Your task to perform on an android device: open app "Microsoft Excel" (install if not already installed) Image 0: 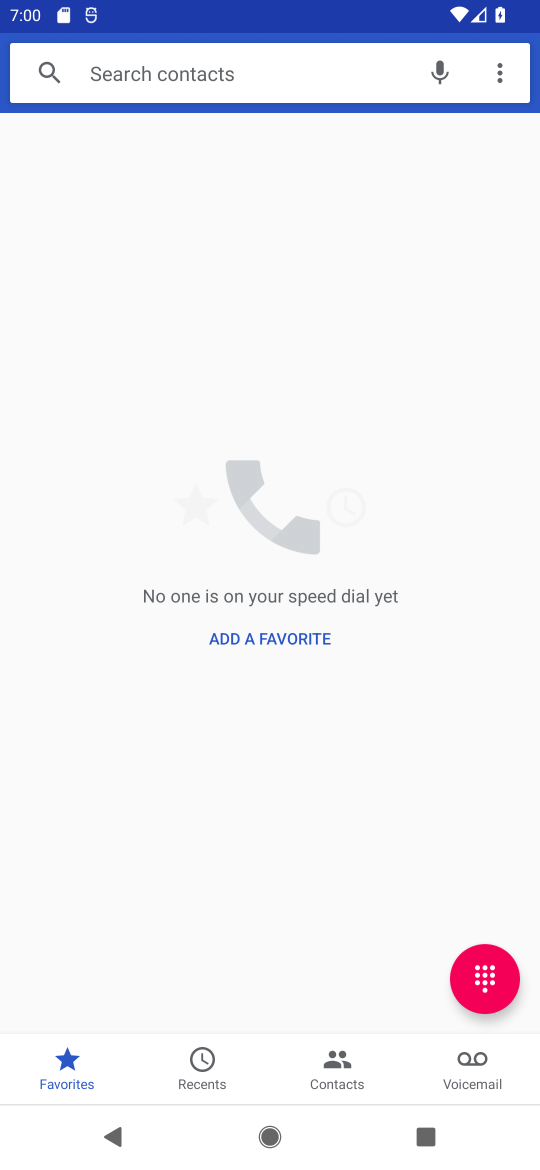
Step 0: press home button
Your task to perform on an android device: open app "Microsoft Excel" (install if not already installed) Image 1: 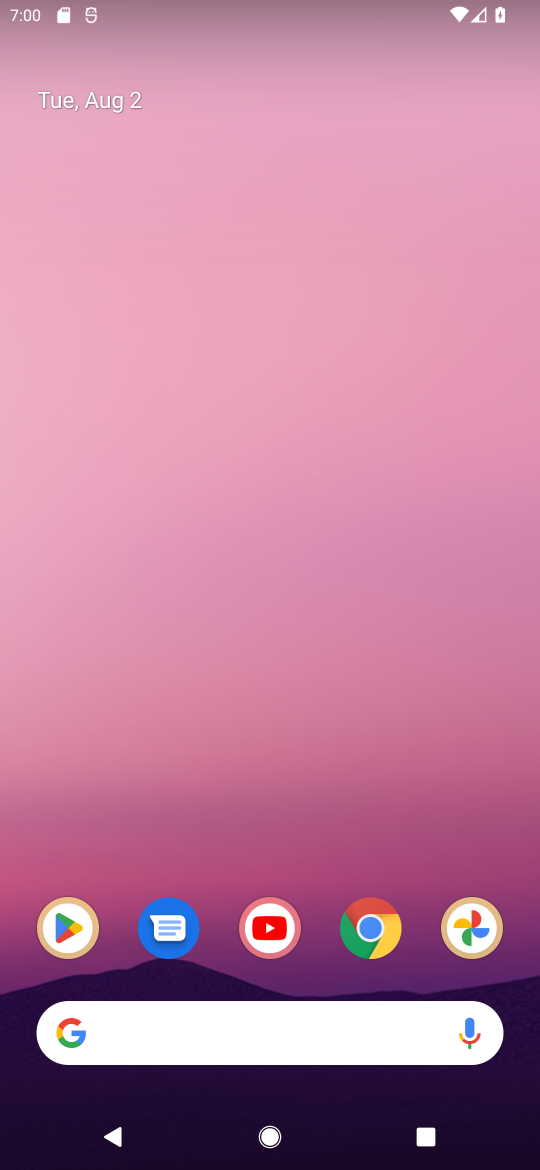
Step 1: click (46, 938)
Your task to perform on an android device: open app "Microsoft Excel" (install if not already installed) Image 2: 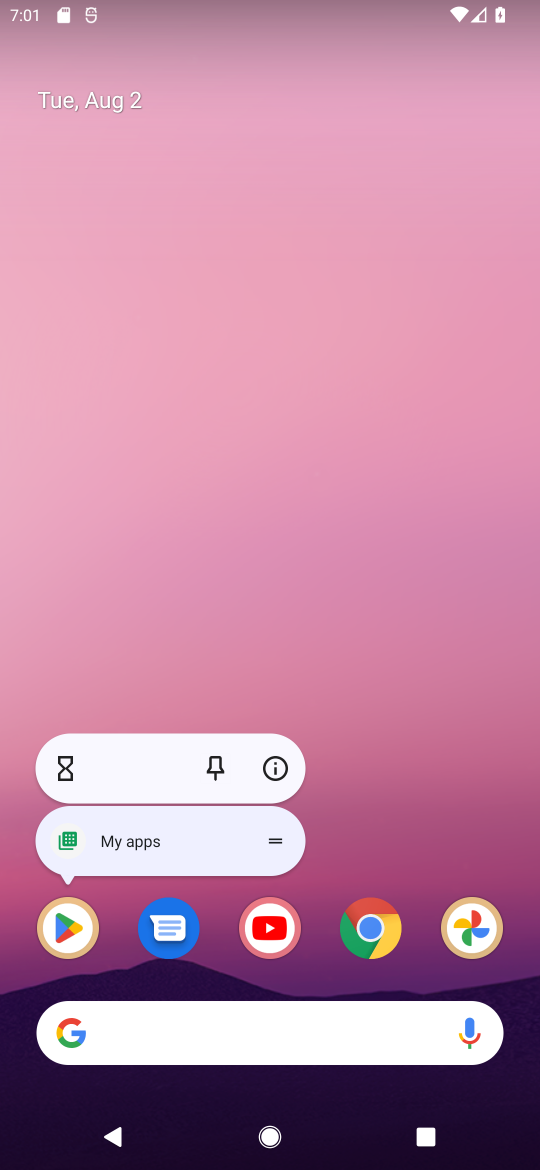
Step 2: click (65, 936)
Your task to perform on an android device: open app "Microsoft Excel" (install if not already installed) Image 3: 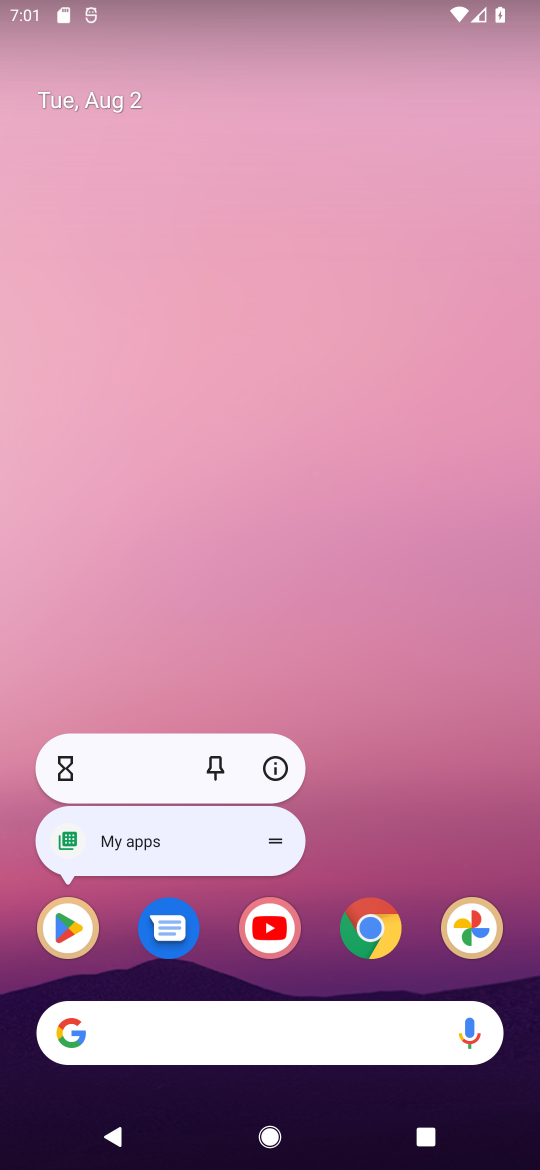
Step 3: click (65, 936)
Your task to perform on an android device: open app "Microsoft Excel" (install if not already installed) Image 4: 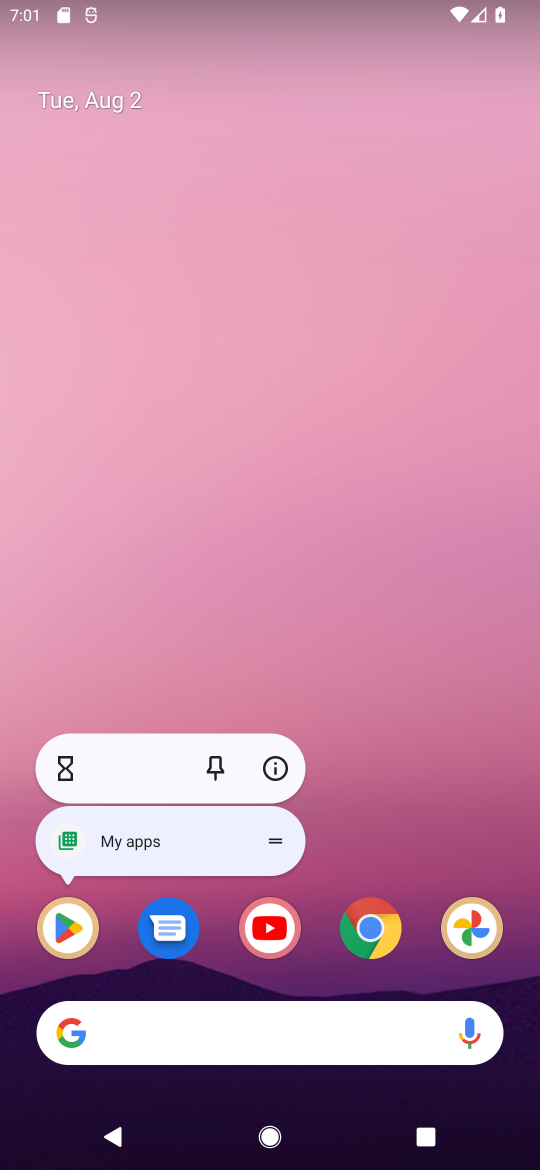
Step 4: click (65, 936)
Your task to perform on an android device: open app "Microsoft Excel" (install if not already installed) Image 5: 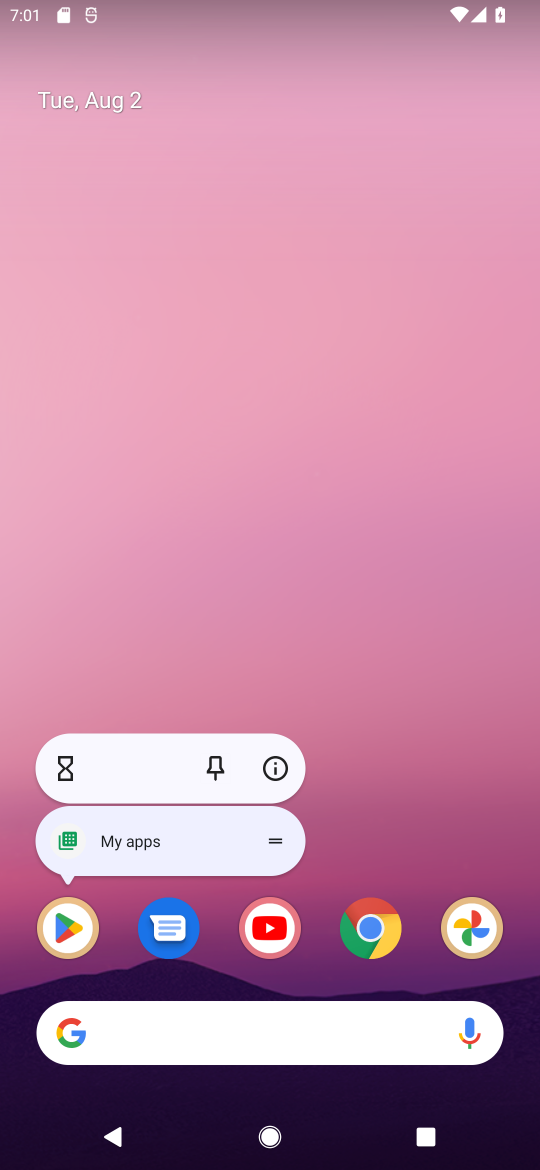
Step 5: click (56, 944)
Your task to perform on an android device: open app "Microsoft Excel" (install if not already installed) Image 6: 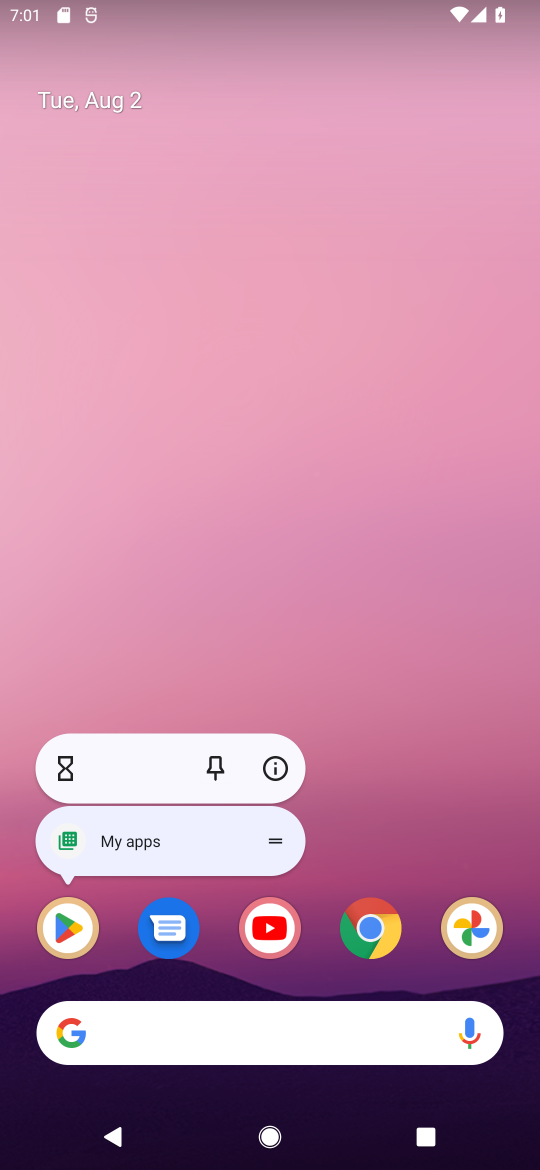
Step 6: click (56, 944)
Your task to perform on an android device: open app "Microsoft Excel" (install if not already installed) Image 7: 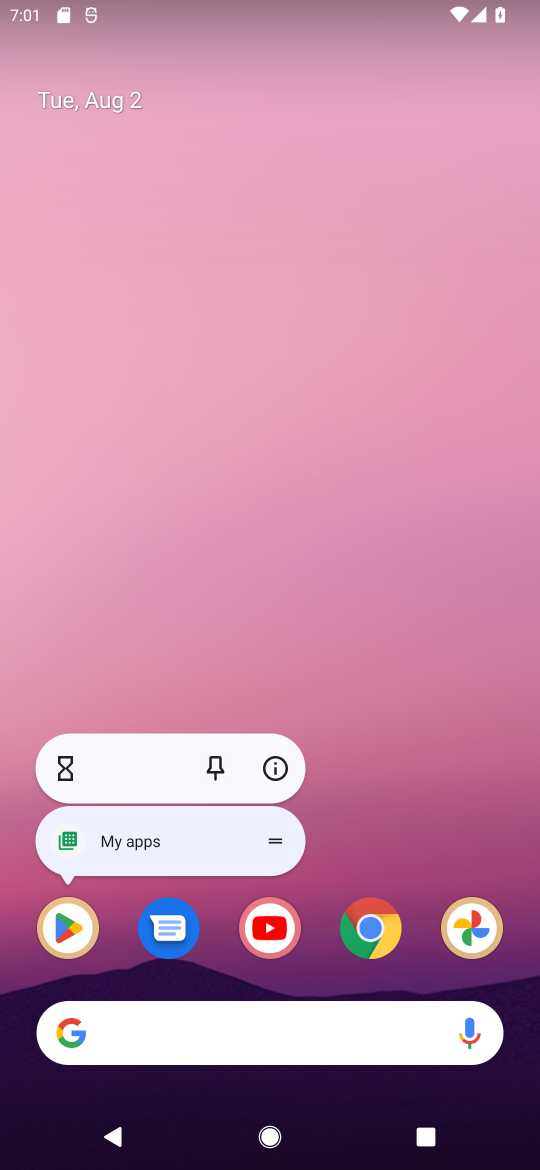
Step 7: click (56, 944)
Your task to perform on an android device: open app "Microsoft Excel" (install if not already installed) Image 8: 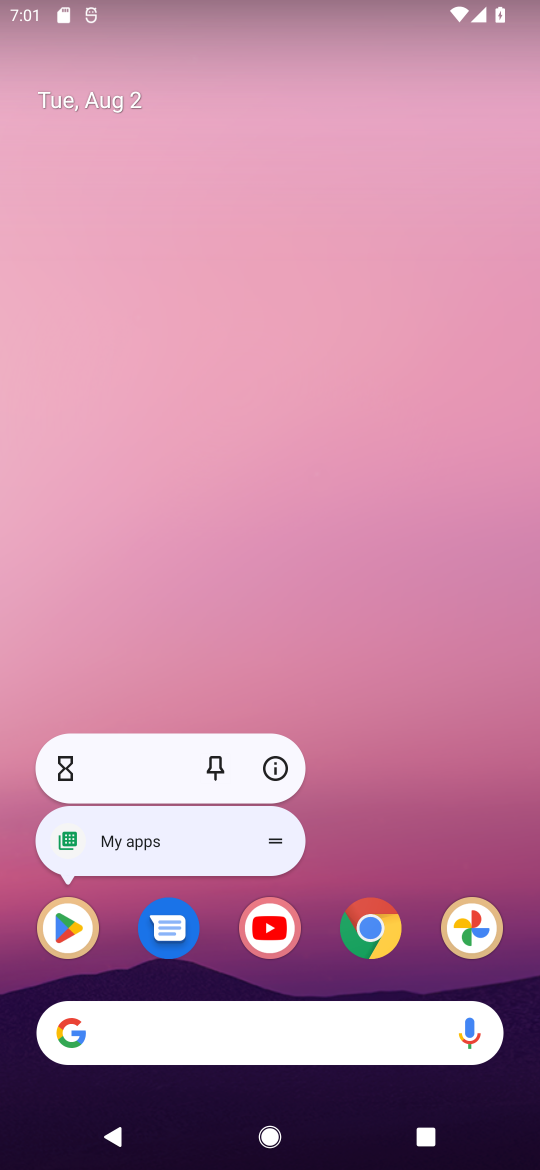
Step 8: click (49, 943)
Your task to perform on an android device: open app "Microsoft Excel" (install if not already installed) Image 9: 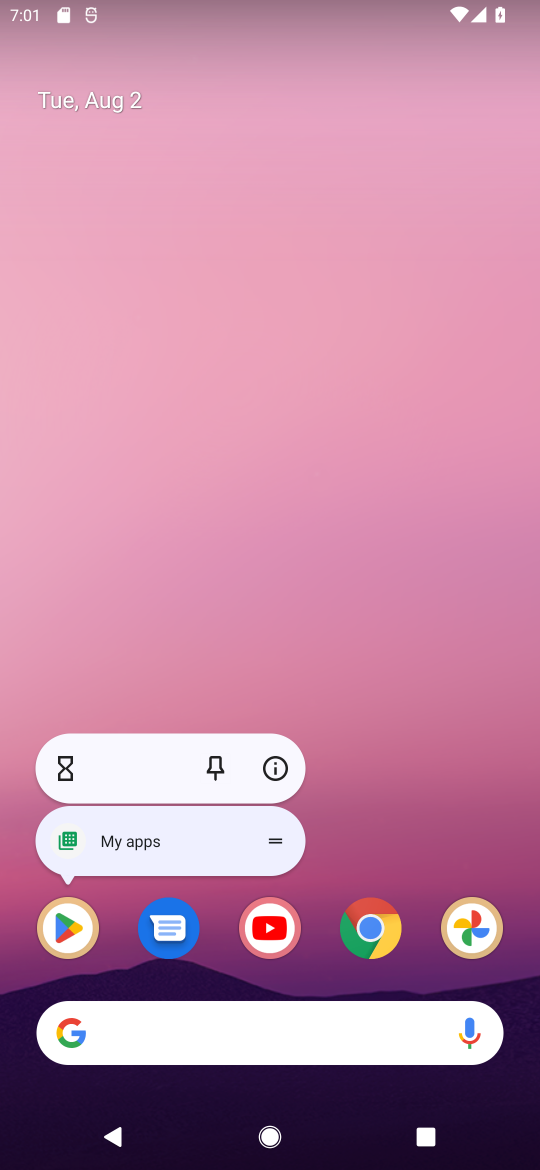
Step 9: click (49, 943)
Your task to perform on an android device: open app "Microsoft Excel" (install if not already installed) Image 10: 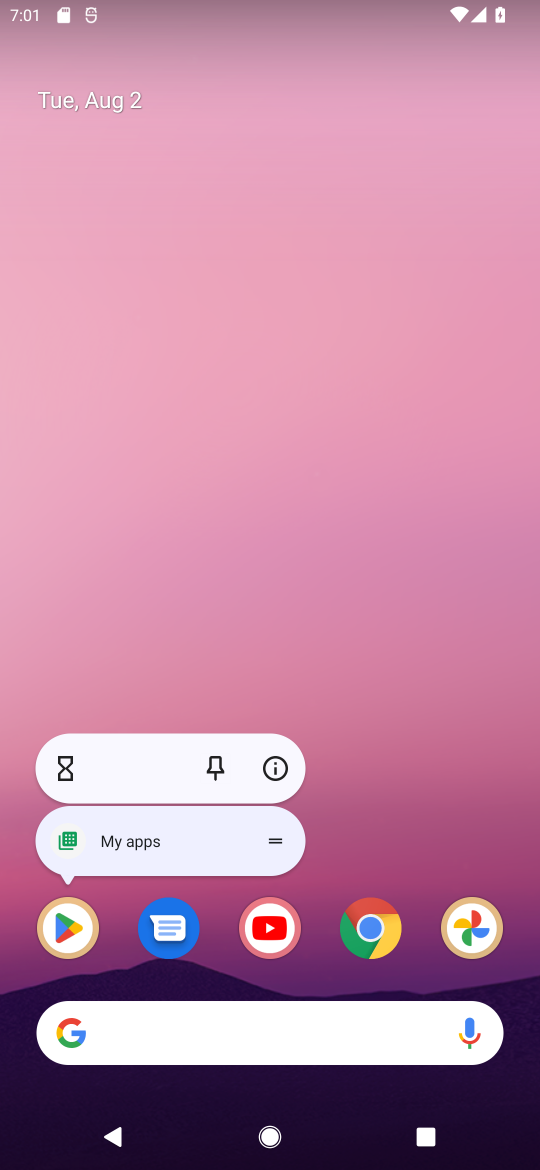
Step 10: click (49, 943)
Your task to perform on an android device: open app "Microsoft Excel" (install if not already installed) Image 11: 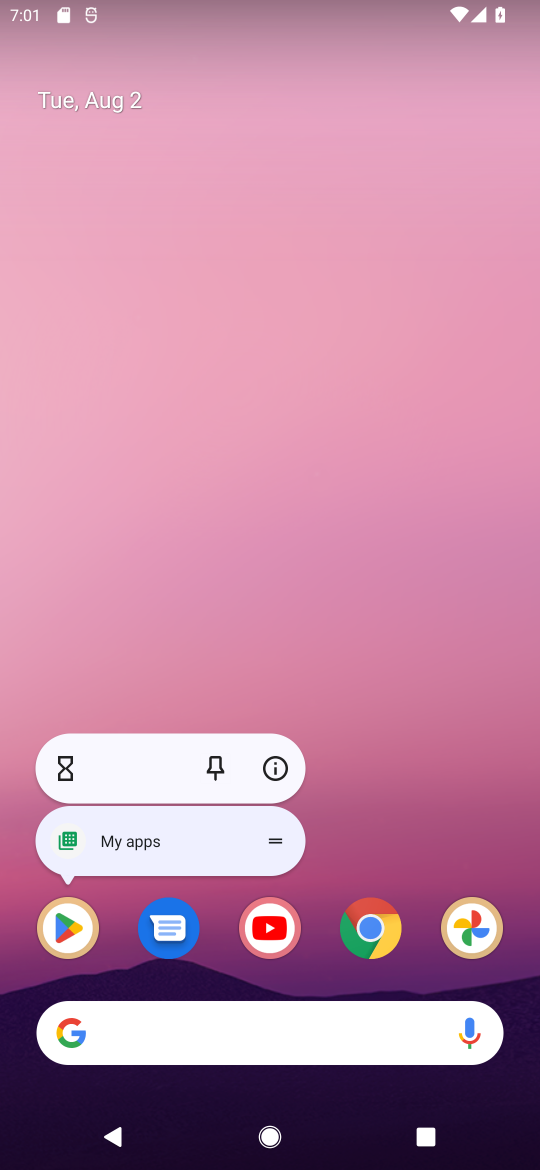
Step 11: click (49, 943)
Your task to perform on an android device: open app "Microsoft Excel" (install if not already installed) Image 12: 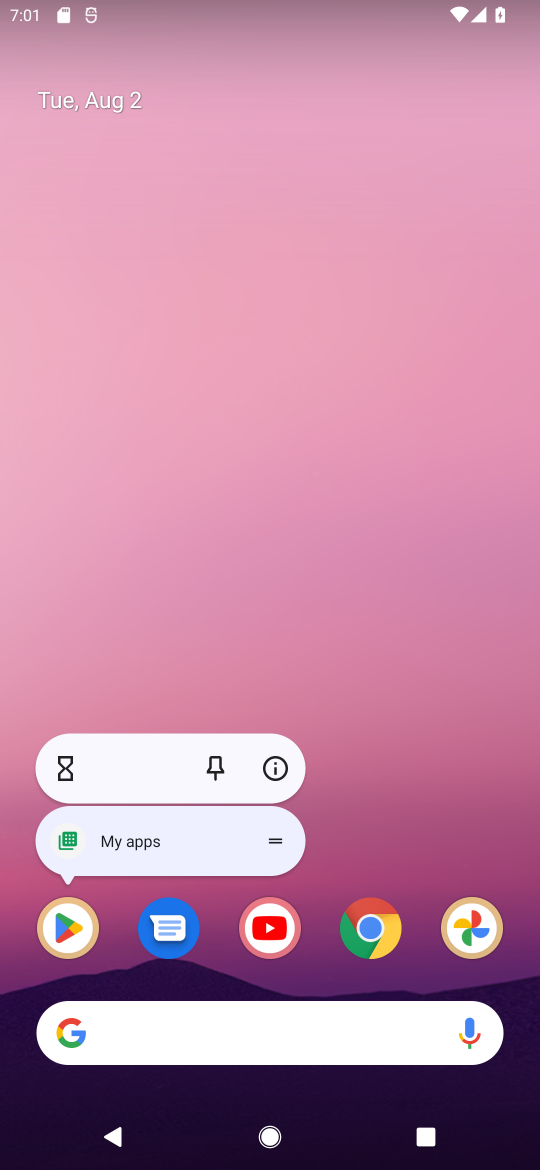
Step 12: click (44, 908)
Your task to perform on an android device: open app "Microsoft Excel" (install if not already installed) Image 13: 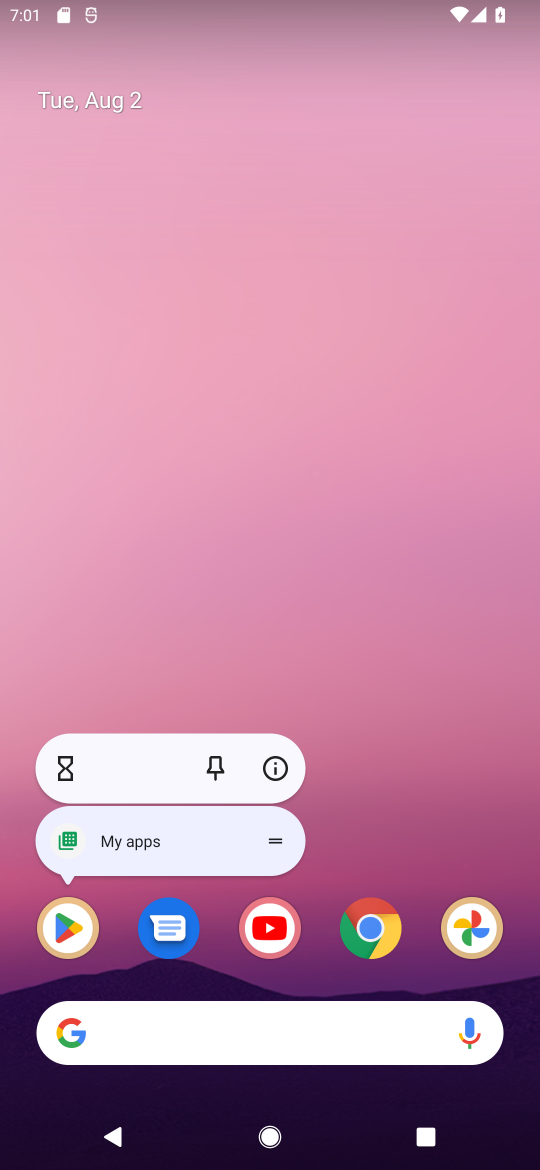
Step 13: click (64, 942)
Your task to perform on an android device: open app "Microsoft Excel" (install if not already installed) Image 14: 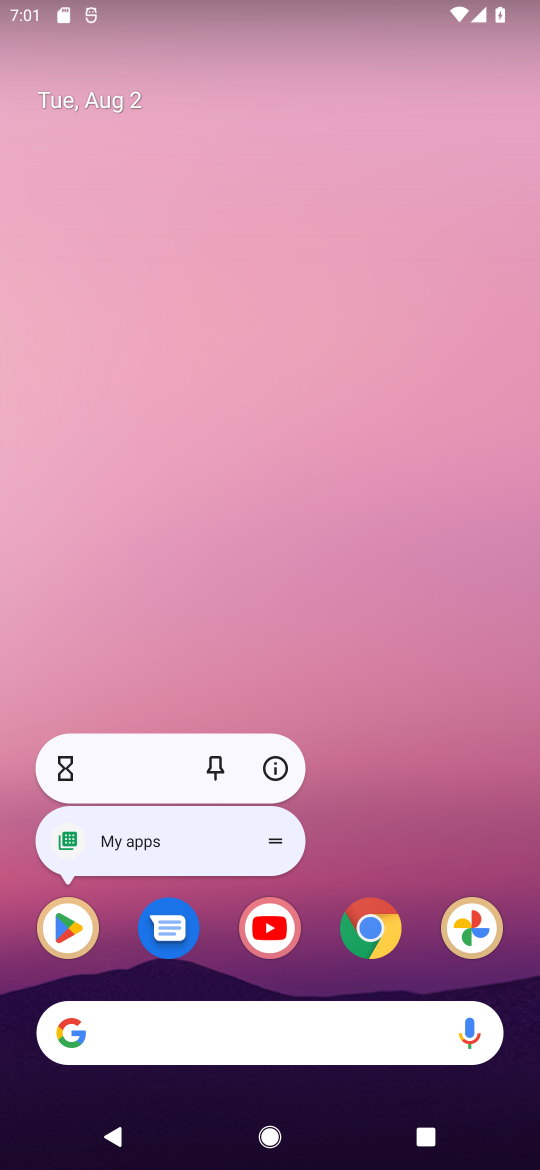
Step 14: press home button
Your task to perform on an android device: open app "Microsoft Excel" (install if not already installed) Image 15: 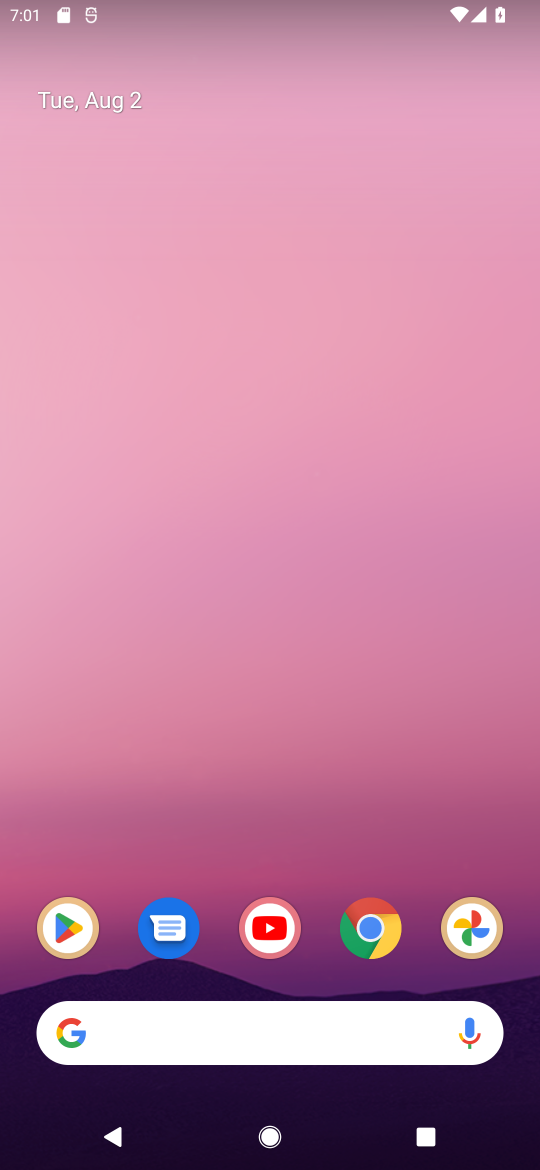
Step 15: drag from (219, 855) to (269, 587)
Your task to perform on an android device: open app "Microsoft Excel" (install if not already installed) Image 16: 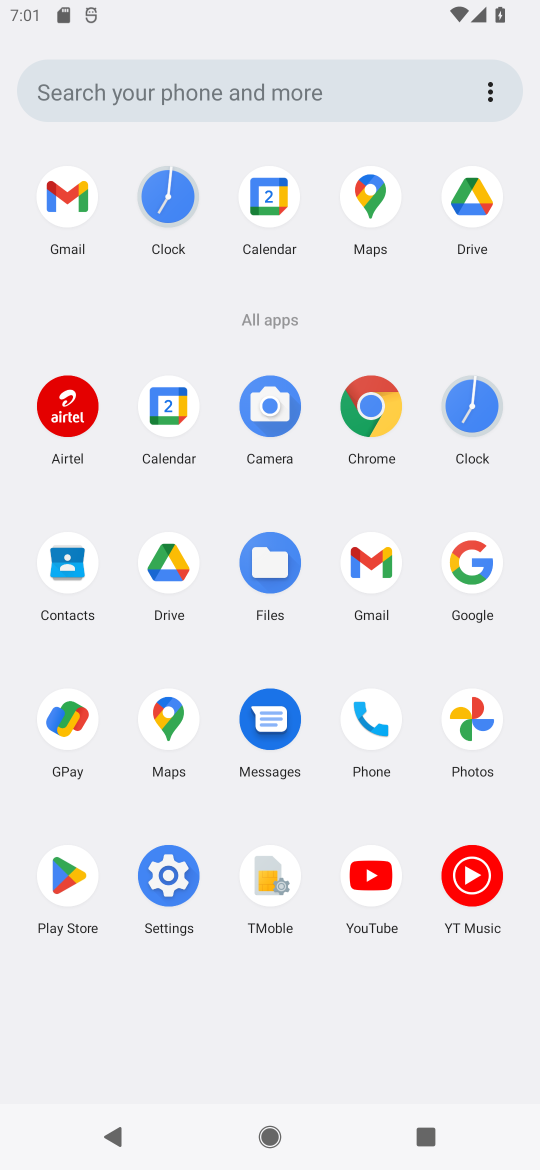
Step 16: click (67, 885)
Your task to perform on an android device: open app "Microsoft Excel" (install if not already installed) Image 17: 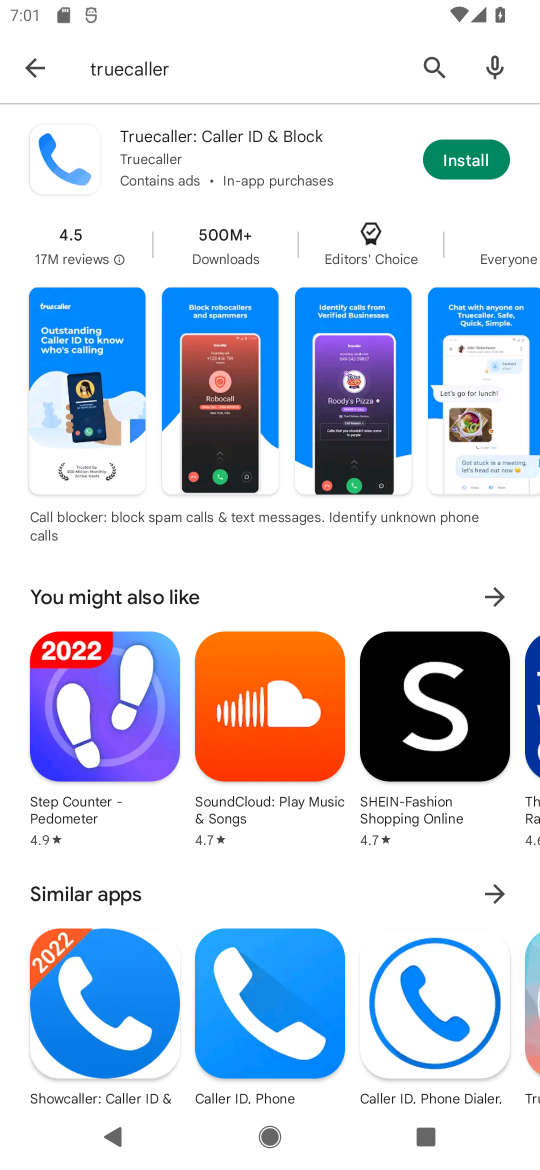
Step 17: click (439, 66)
Your task to perform on an android device: open app "Microsoft Excel" (install if not already installed) Image 18: 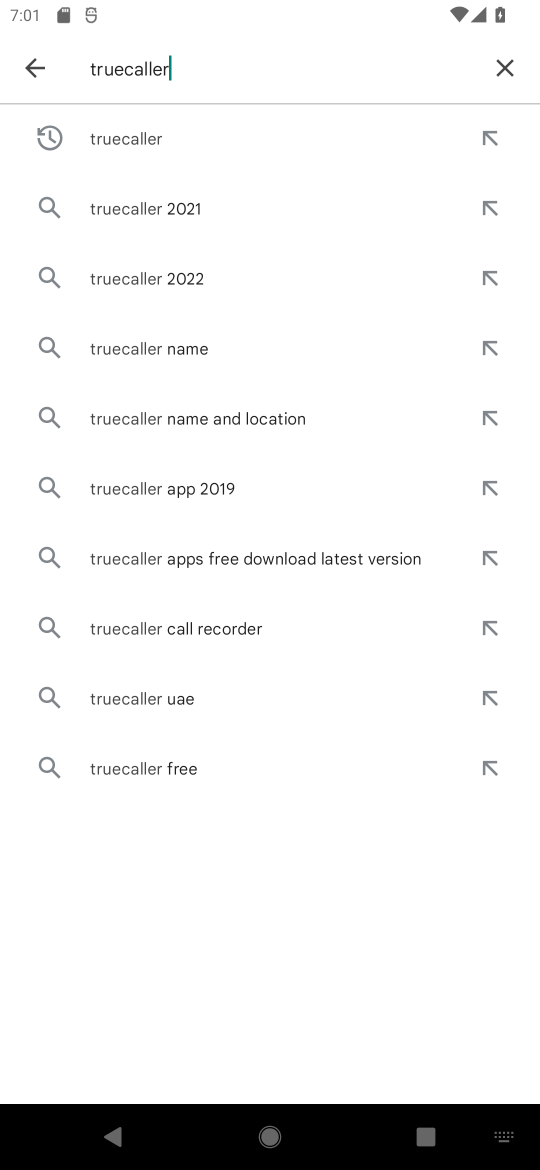
Step 18: click (518, 62)
Your task to perform on an android device: open app "Microsoft Excel" (install if not already installed) Image 19: 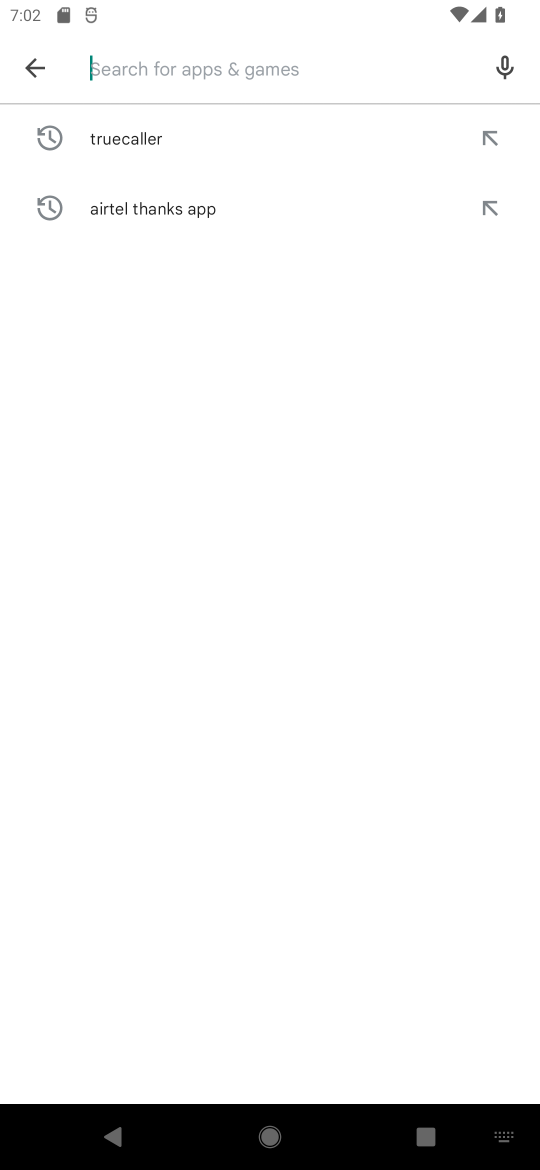
Step 19: type "microsoft excel"
Your task to perform on an android device: open app "Microsoft Excel" (install if not already installed) Image 20: 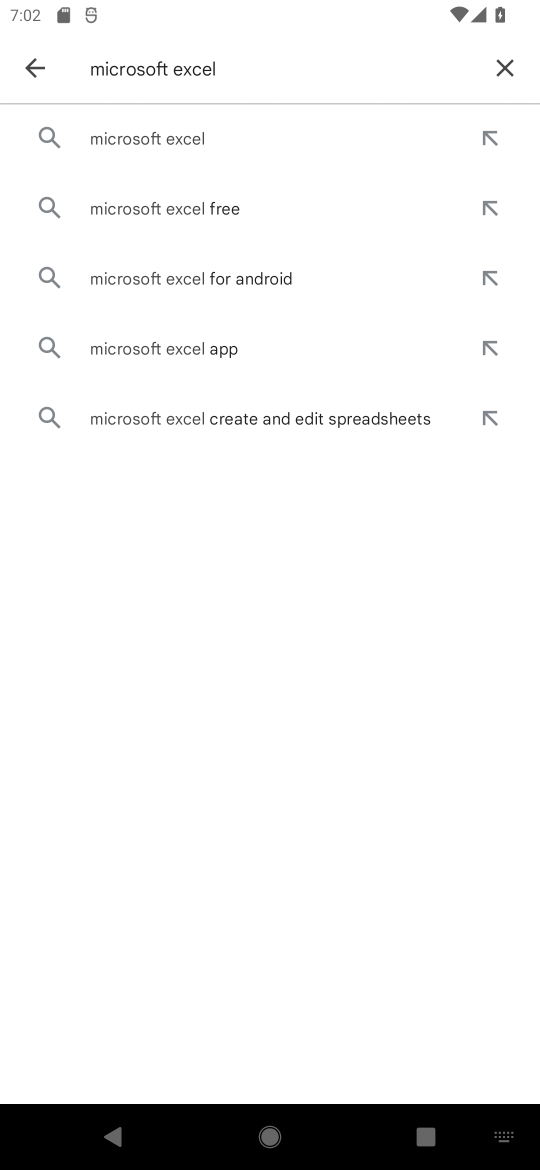
Step 20: click (271, 140)
Your task to perform on an android device: open app "Microsoft Excel" (install if not already installed) Image 21: 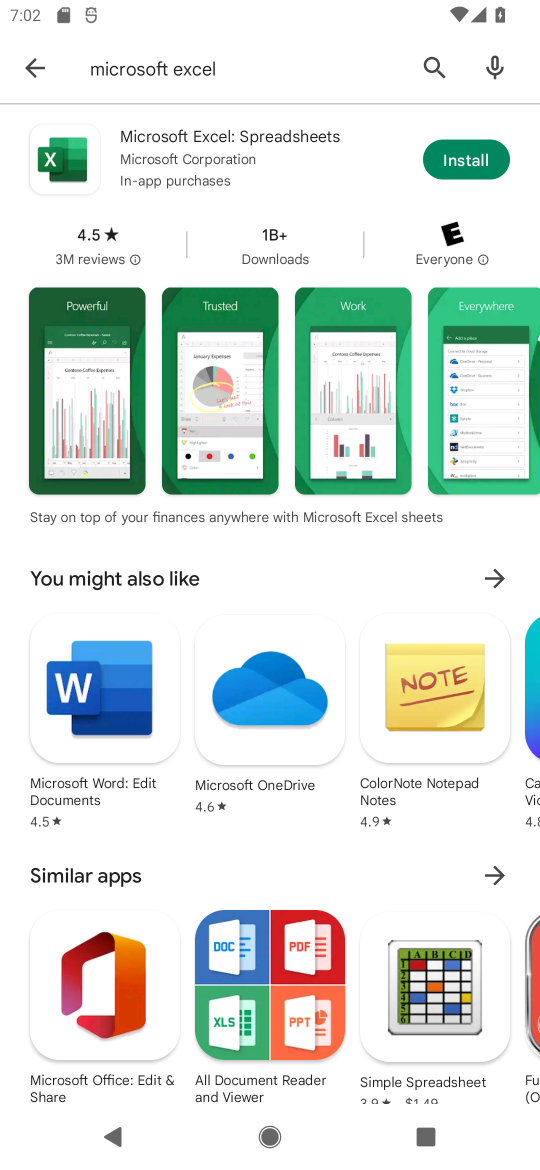
Step 21: click (495, 170)
Your task to perform on an android device: open app "Microsoft Excel" (install if not already installed) Image 22: 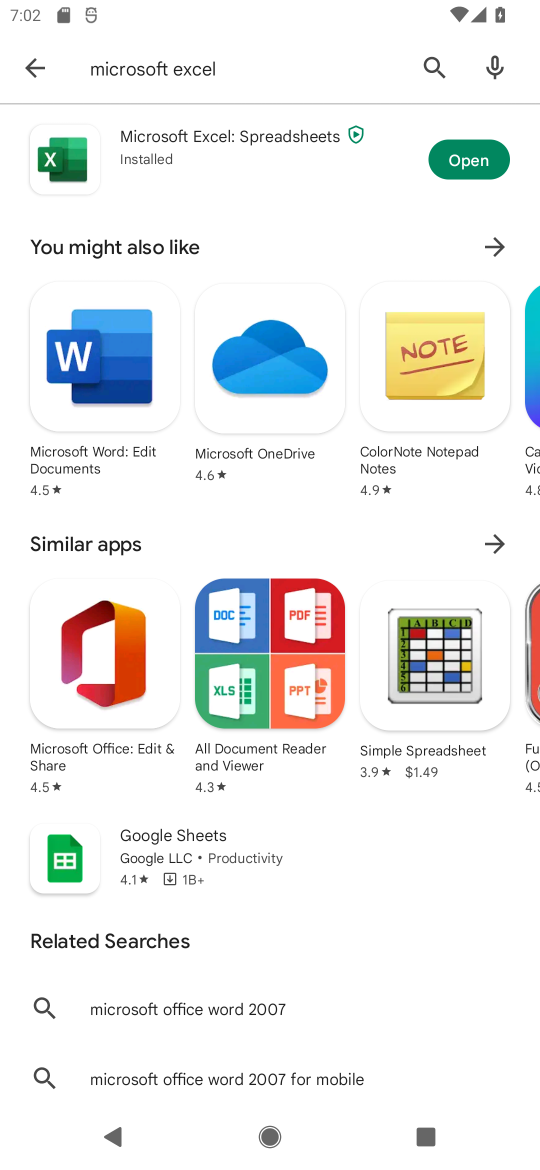
Step 22: click (465, 150)
Your task to perform on an android device: open app "Microsoft Excel" (install if not already installed) Image 23: 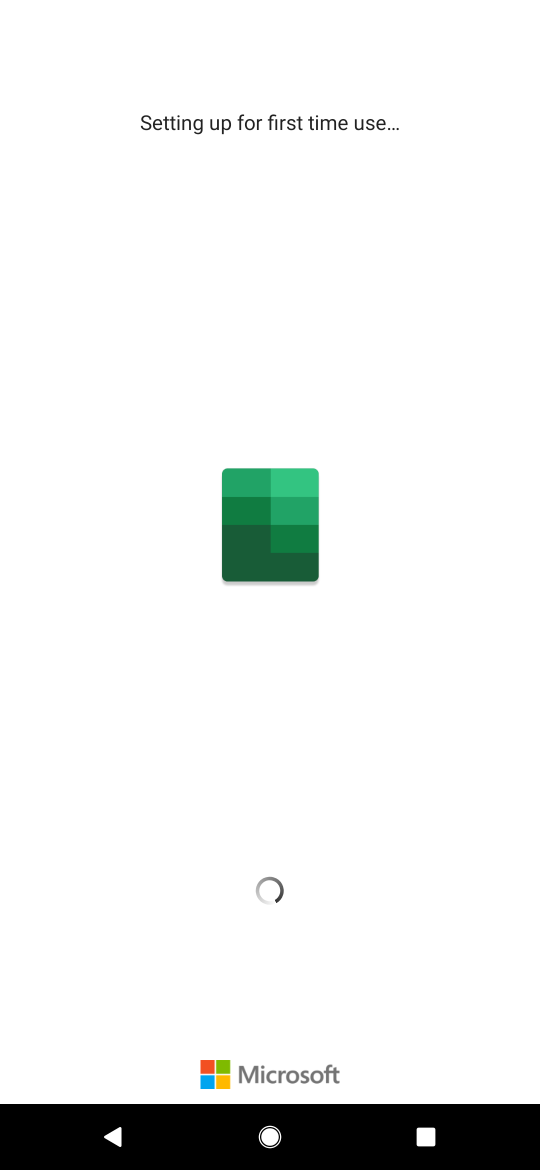
Step 23: task complete